Your task to perform on an android device: set an alarm Image 0: 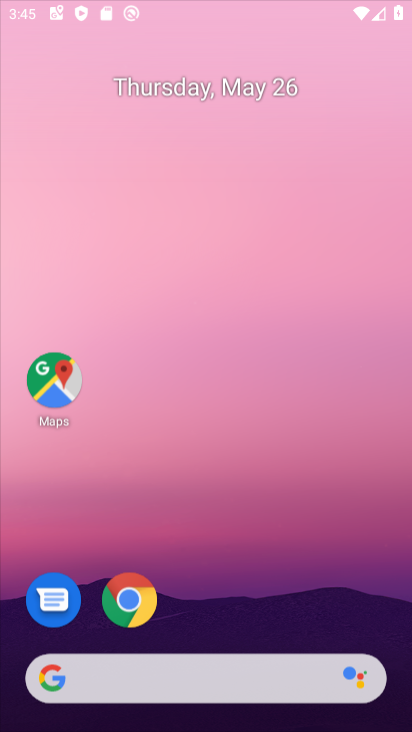
Step 0: drag from (381, 5) to (259, 14)
Your task to perform on an android device: set an alarm Image 1: 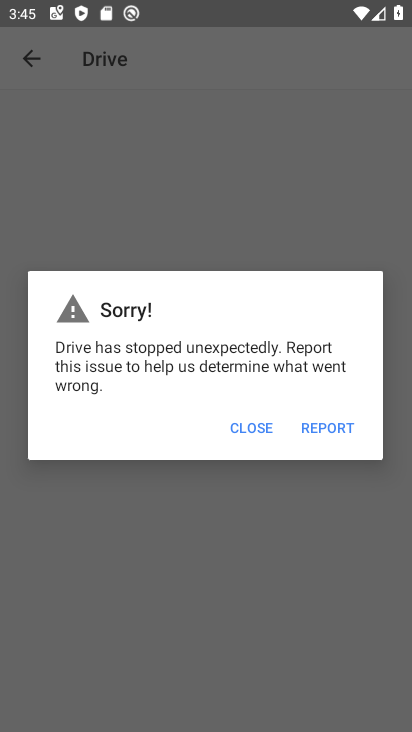
Step 1: press home button
Your task to perform on an android device: set an alarm Image 2: 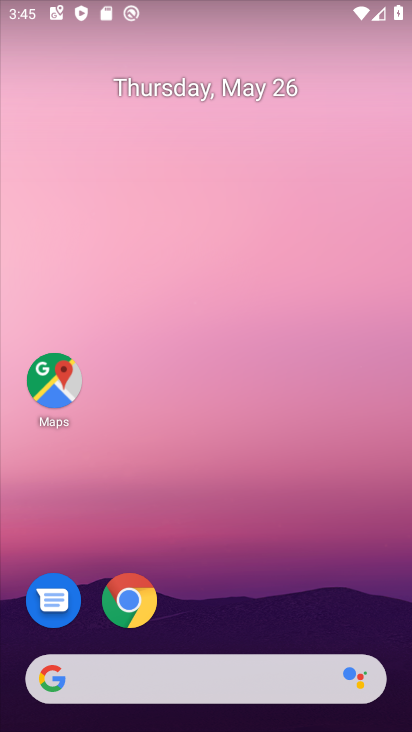
Step 2: drag from (195, 617) to (218, 57)
Your task to perform on an android device: set an alarm Image 3: 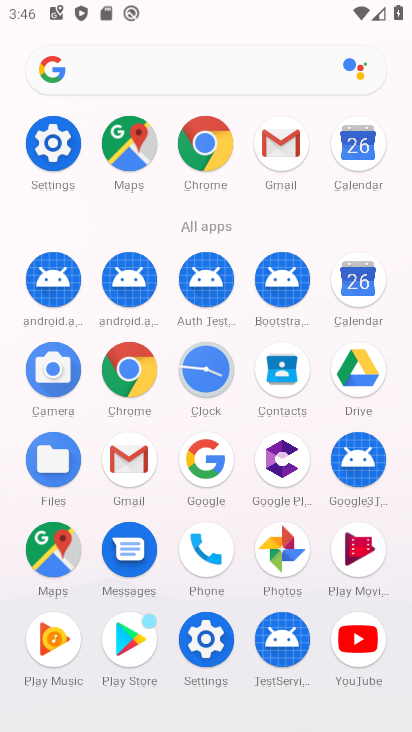
Step 3: click (216, 372)
Your task to perform on an android device: set an alarm Image 4: 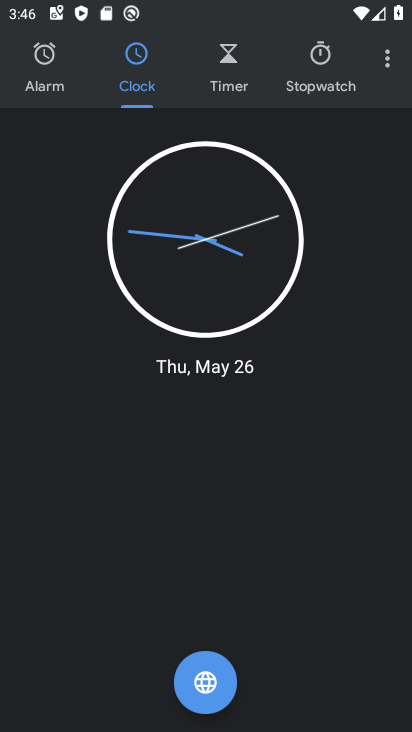
Step 4: click (44, 57)
Your task to perform on an android device: set an alarm Image 5: 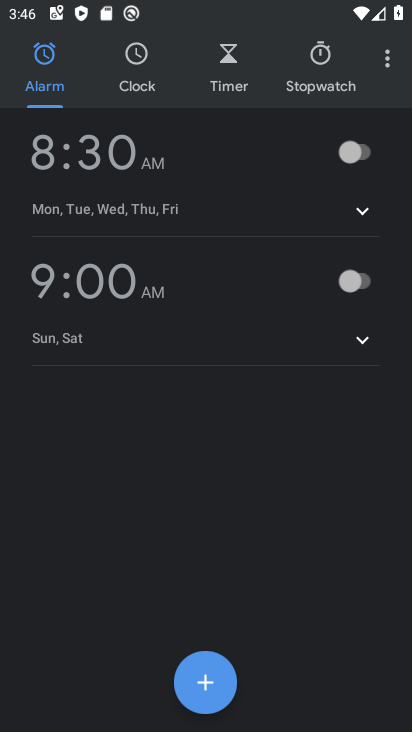
Step 5: click (120, 171)
Your task to perform on an android device: set an alarm Image 6: 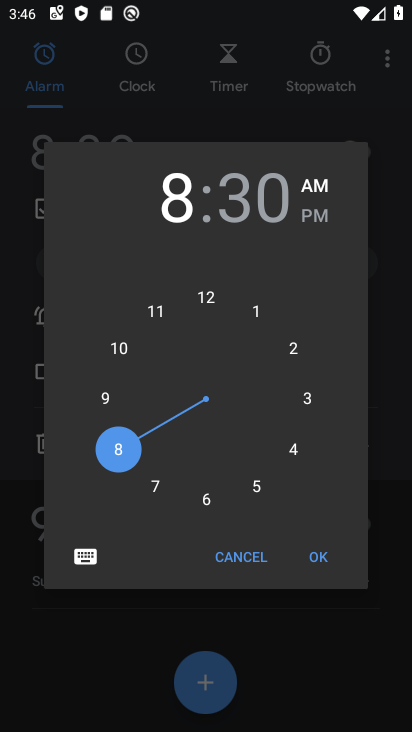
Step 6: click (127, 353)
Your task to perform on an android device: set an alarm Image 7: 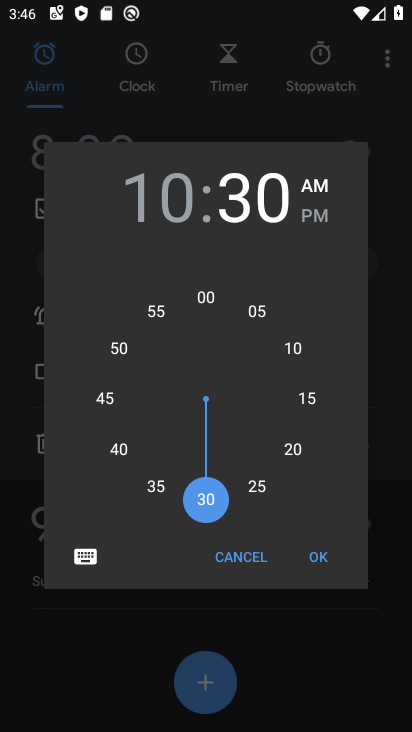
Step 7: click (296, 355)
Your task to perform on an android device: set an alarm Image 8: 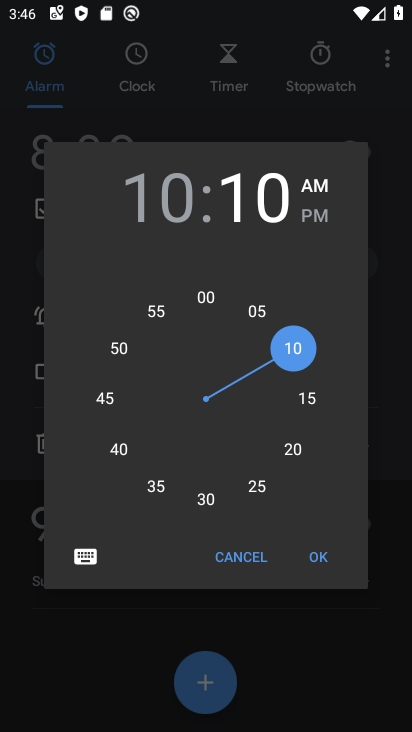
Step 8: click (314, 562)
Your task to perform on an android device: set an alarm Image 9: 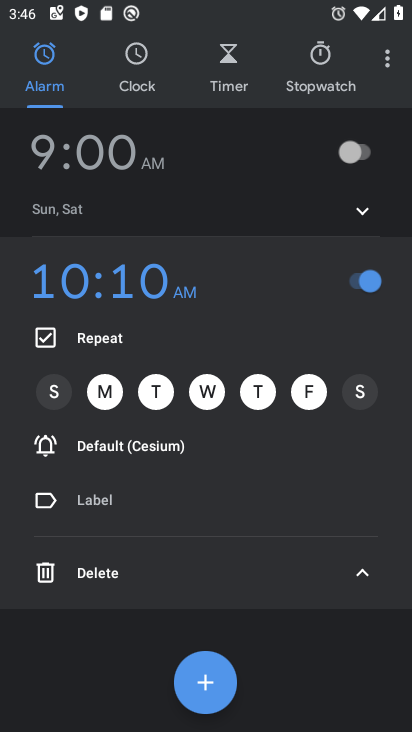
Step 9: click (359, 561)
Your task to perform on an android device: set an alarm Image 10: 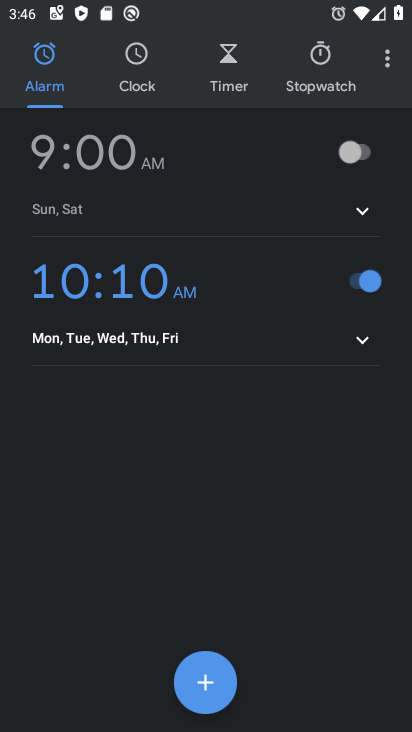
Step 10: task complete